Your task to perform on an android device: allow cookies in the chrome app Image 0: 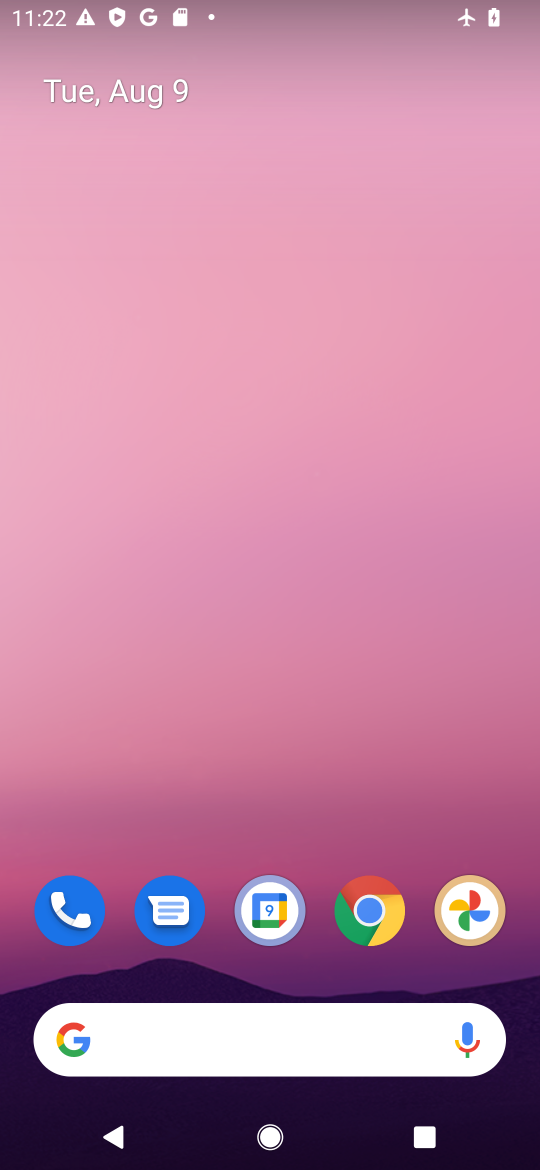
Step 0: press home button
Your task to perform on an android device: allow cookies in the chrome app Image 1: 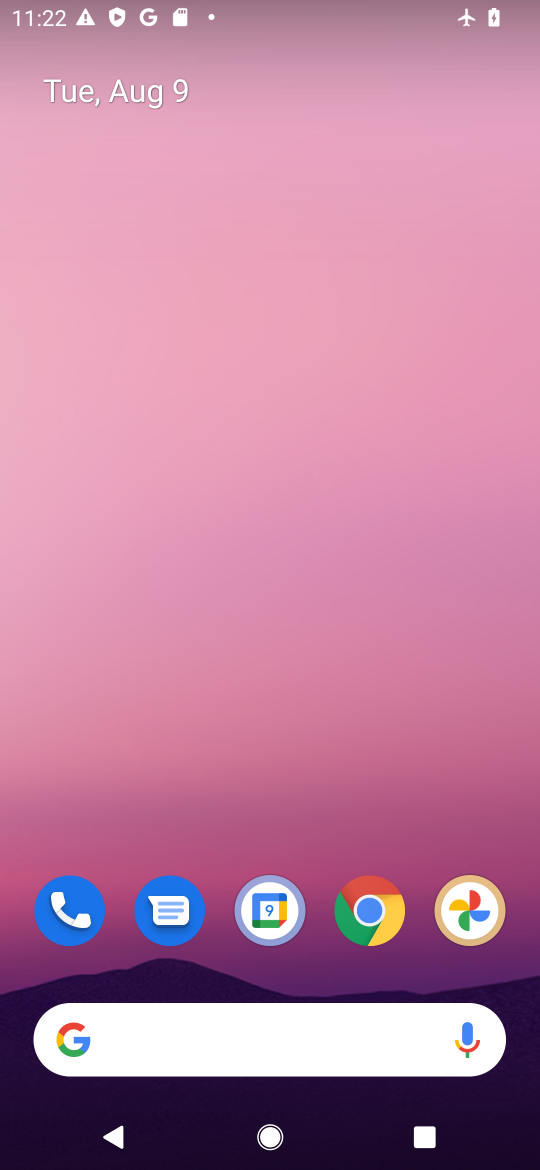
Step 1: click (372, 900)
Your task to perform on an android device: allow cookies in the chrome app Image 2: 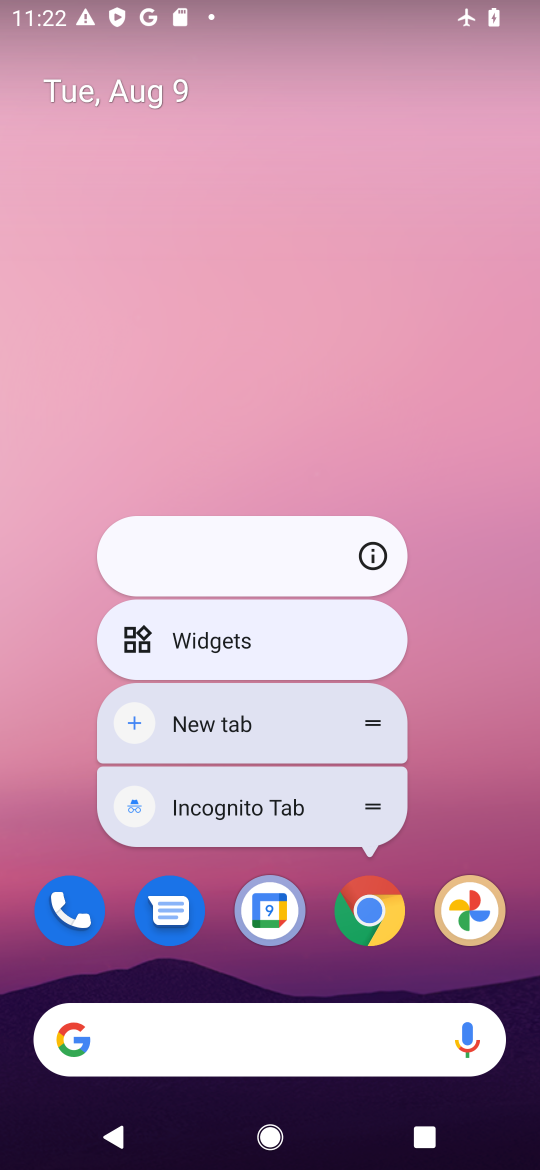
Step 2: click (356, 911)
Your task to perform on an android device: allow cookies in the chrome app Image 3: 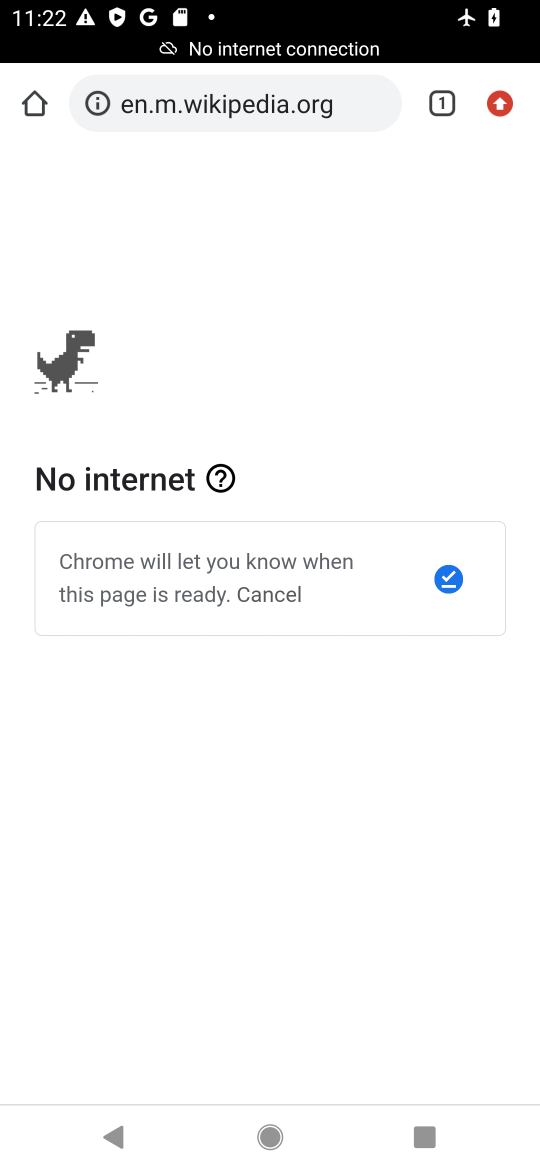
Step 3: click (514, 109)
Your task to perform on an android device: allow cookies in the chrome app Image 4: 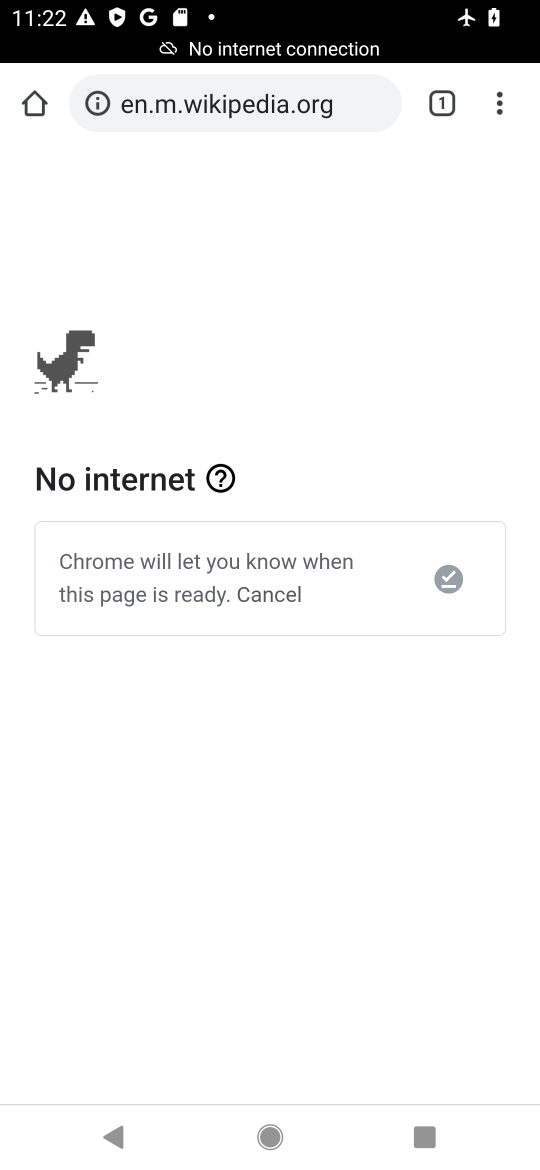
Step 4: click (502, 101)
Your task to perform on an android device: allow cookies in the chrome app Image 5: 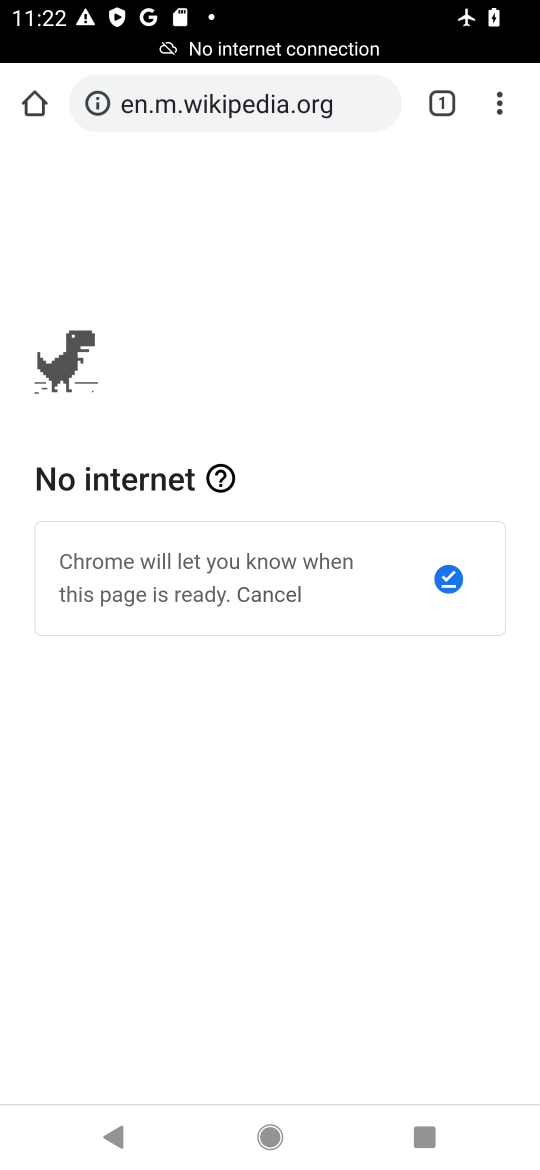
Step 5: click (502, 101)
Your task to perform on an android device: allow cookies in the chrome app Image 6: 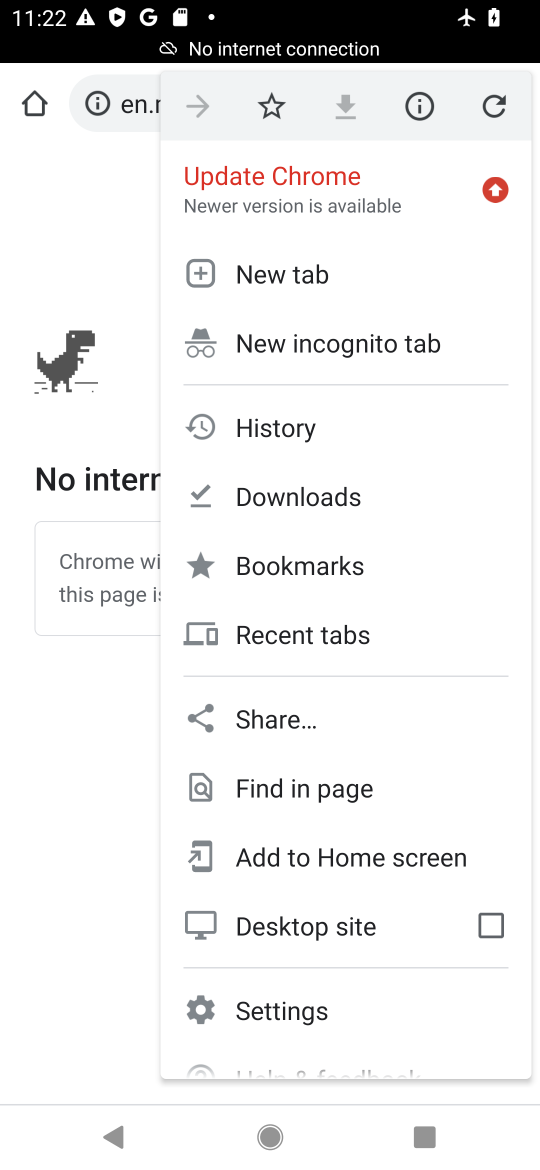
Step 6: click (239, 1016)
Your task to perform on an android device: allow cookies in the chrome app Image 7: 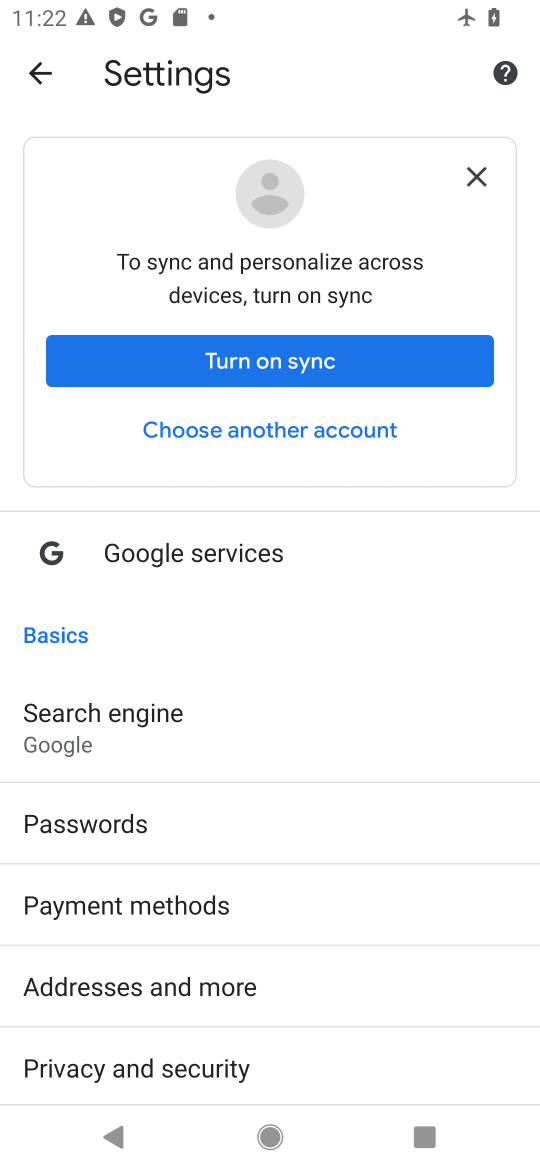
Step 7: task complete